Your task to perform on an android device: find which apps use the phone's location Image 0: 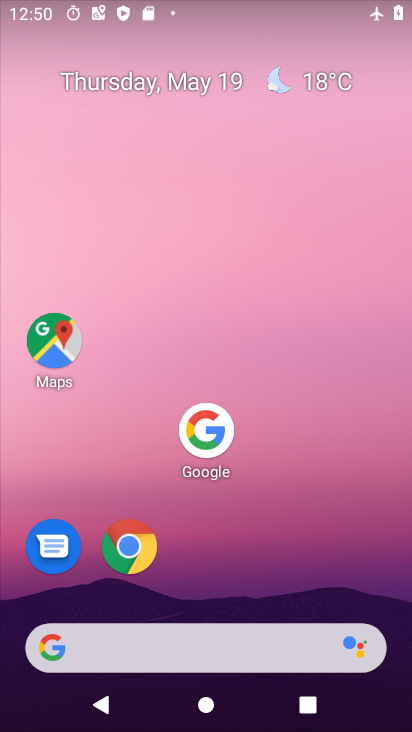
Step 0: drag from (221, 539) to (268, 45)
Your task to perform on an android device: find which apps use the phone's location Image 1: 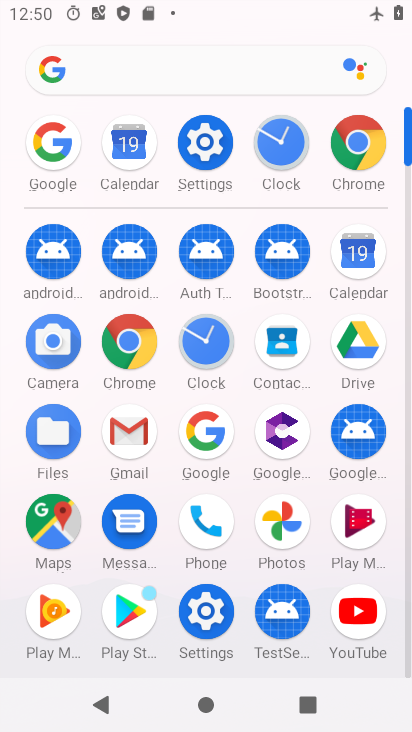
Step 1: click (208, 148)
Your task to perform on an android device: find which apps use the phone's location Image 2: 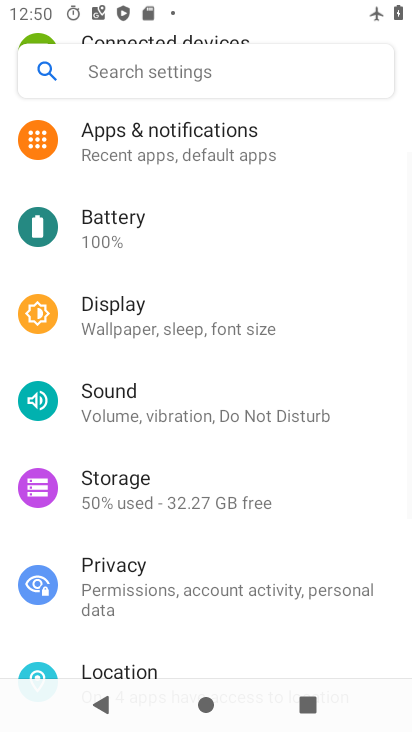
Step 2: drag from (218, 501) to (239, 328)
Your task to perform on an android device: find which apps use the phone's location Image 3: 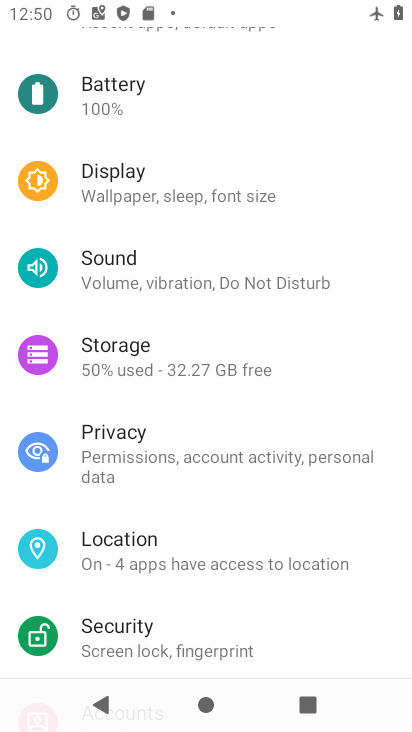
Step 3: click (135, 542)
Your task to perform on an android device: find which apps use the phone's location Image 4: 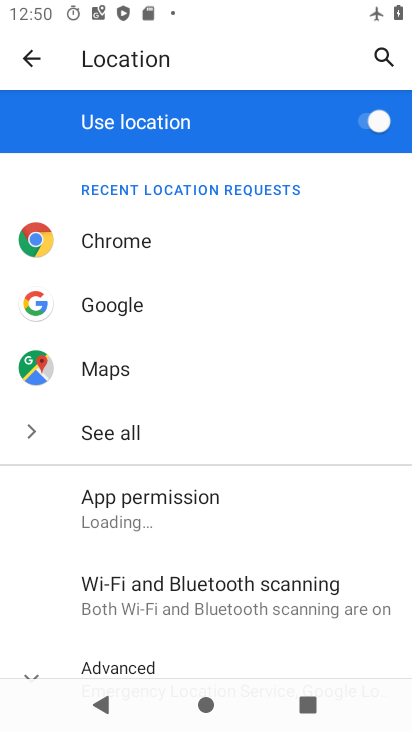
Step 4: click (152, 501)
Your task to perform on an android device: find which apps use the phone's location Image 5: 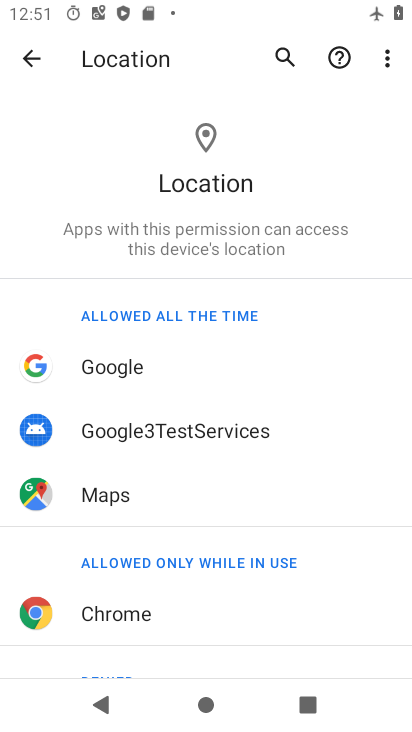
Step 5: task complete